Your task to perform on an android device: Show me recent news Image 0: 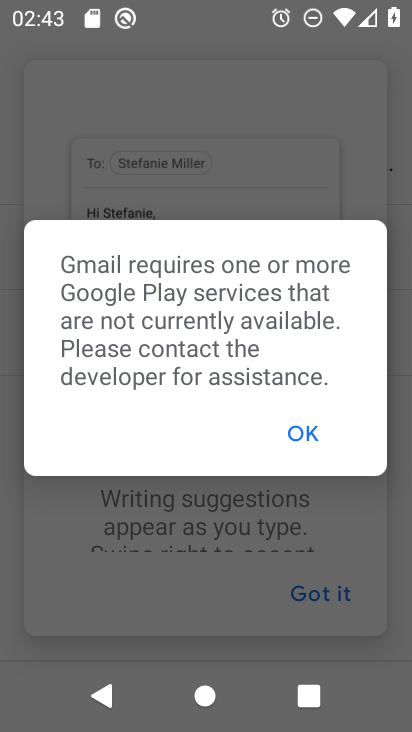
Step 0: press home button
Your task to perform on an android device: Show me recent news Image 1: 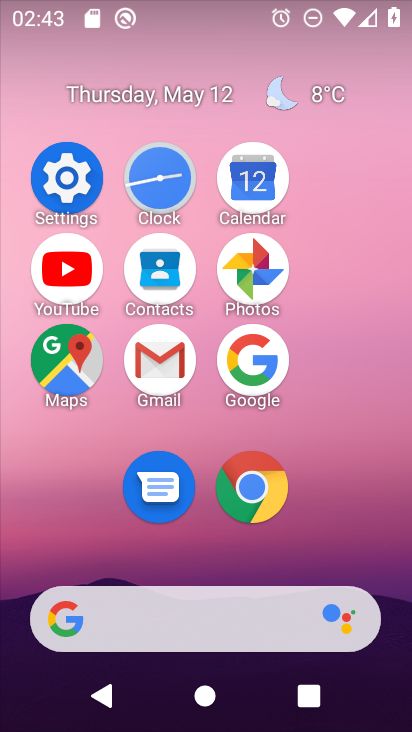
Step 1: click (265, 362)
Your task to perform on an android device: Show me recent news Image 2: 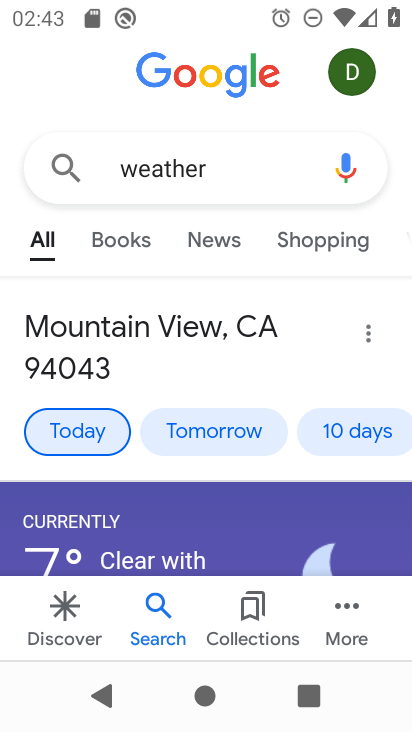
Step 2: click (265, 175)
Your task to perform on an android device: Show me recent news Image 3: 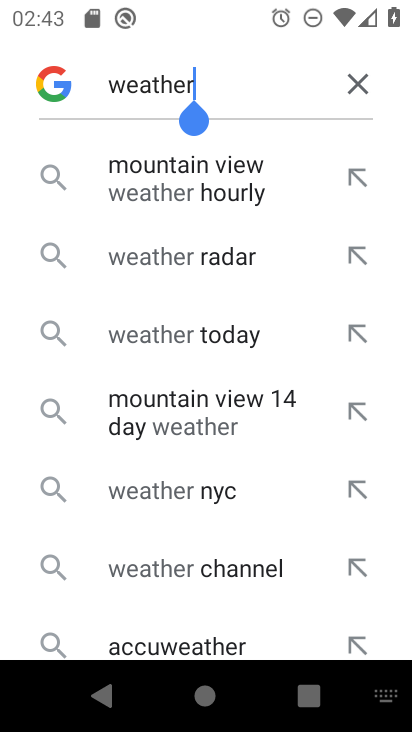
Step 3: click (371, 75)
Your task to perform on an android device: Show me recent news Image 4: 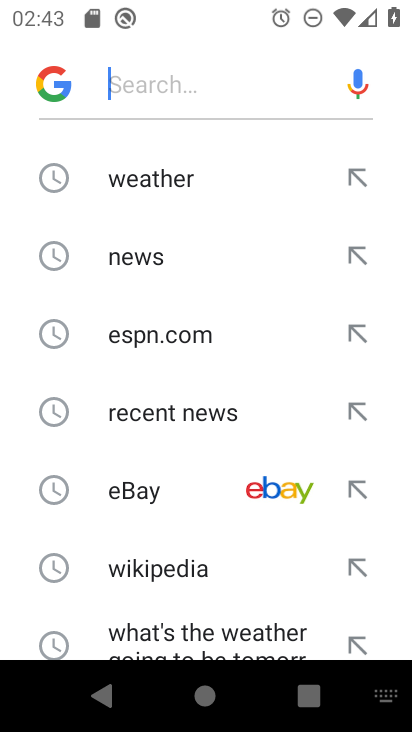
Step 4: click (179, 415)
Your task to perform on an android device: Show me recent news Image 5: 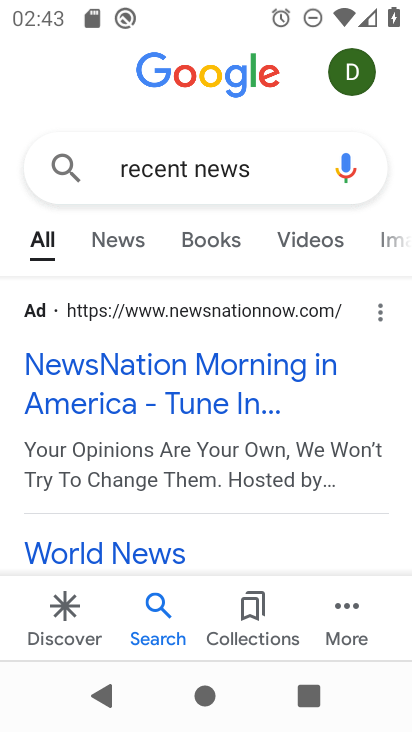
Step 5: task complete